Your task to perform on an android device: Open calendar and show me the fourth week of next month Image 0: 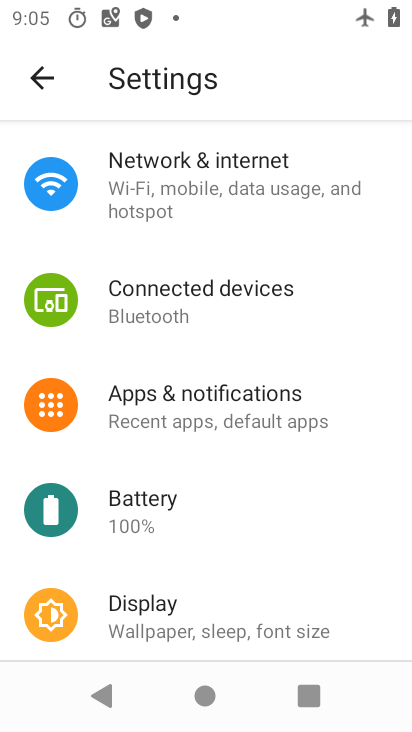
Step 0: press home button
Your task to perform on an android device: Open calendar and show me the fourth week of next month Image 1: 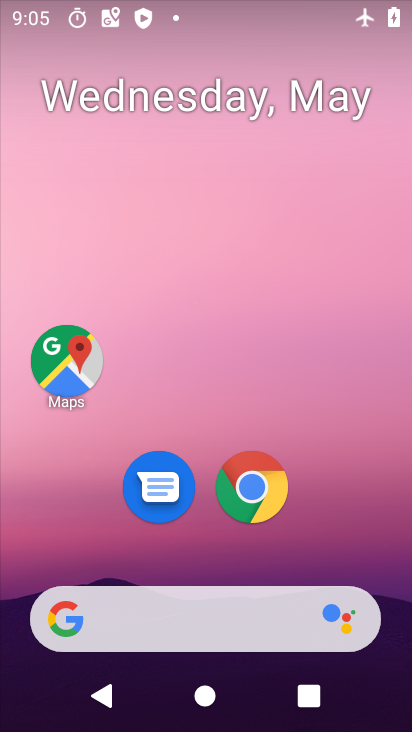
Step 1: drag from (210, 546) to (217, 207)
Your task to perform on an android device: Open calendar and show me the fourth week of next month Image 2: 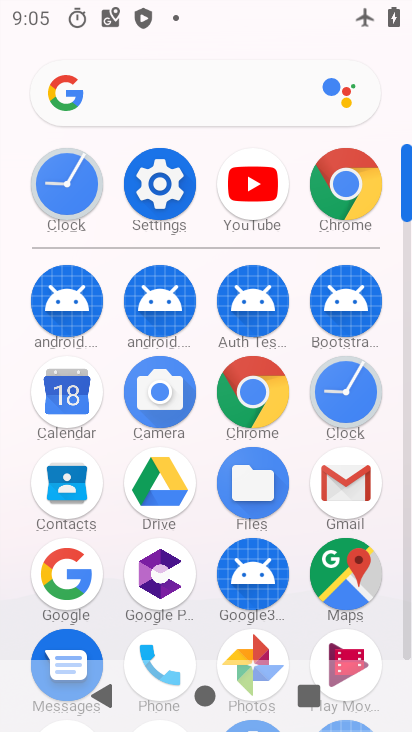
Step 2: click (77, 390)
Your task to perform on an android device: Open calendar and show me the fourth week of next month Image 3: 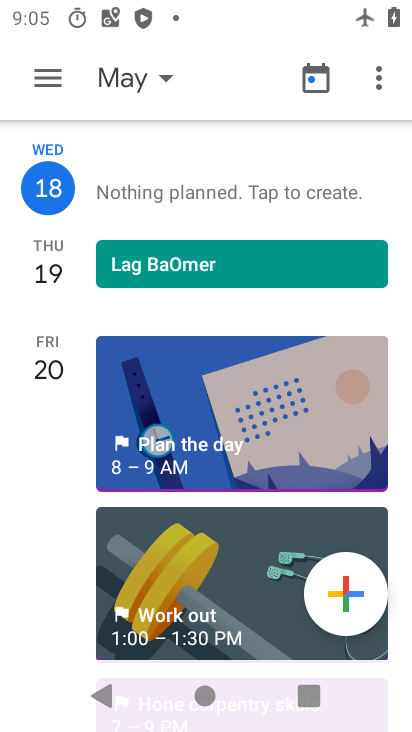
Step 3: click (154, 77)
Your task to perform on an android device: Open calendar and show me the fourth week of next month Image 4: 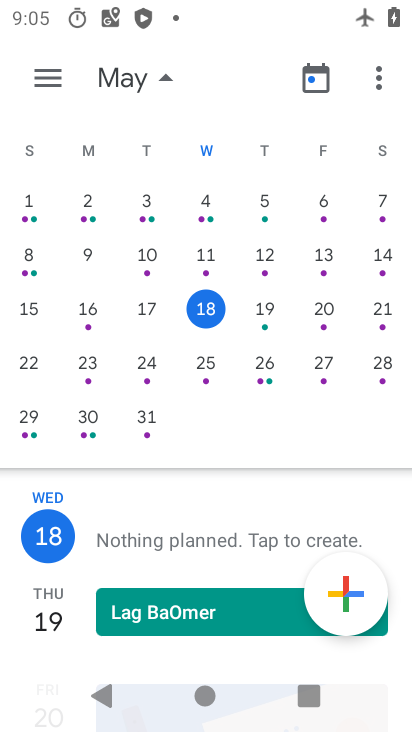
Step 4: drag from (352, 284) to (11, 268)
Your task to perform on an android device: Open calendar and show me the fourth week of next month Image 5: 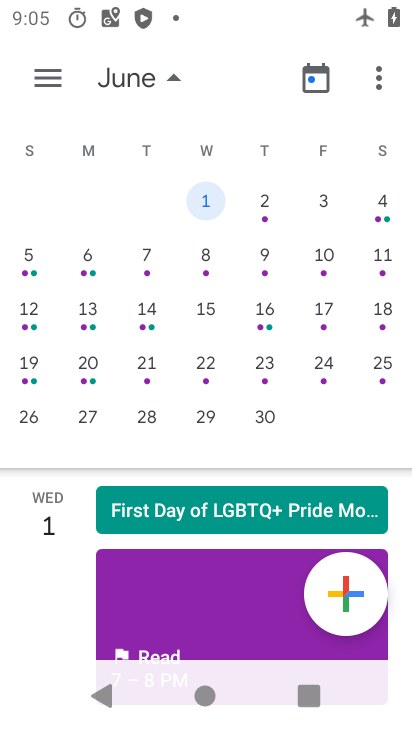
Step 5: click (25, 371)
Your task to perform on an android device: Open calendar and show me the fourth week of next month Image 6: 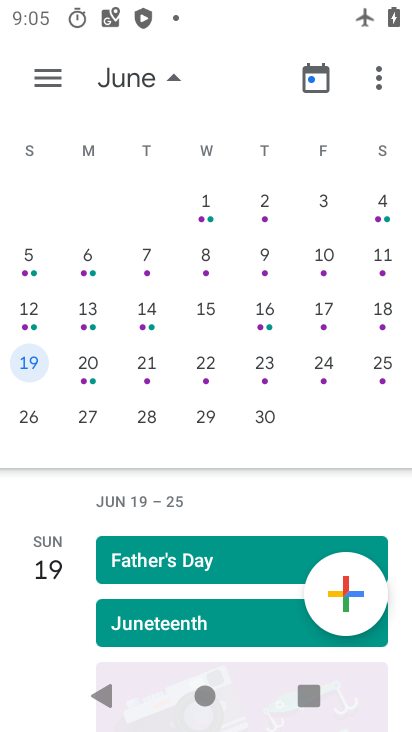
Step 6: task complete